Your task to perform on an android device: Open Chrome and go to settings Image 0: 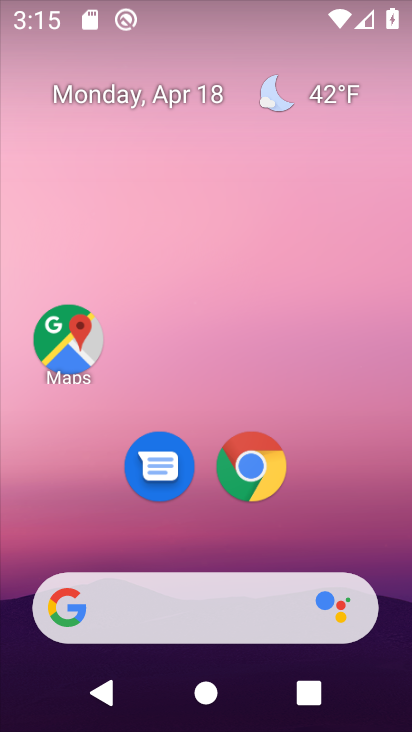
Step 0: click (277, 480)
Your task to perform on an android device: Open Chrome and go to settings Image 1: 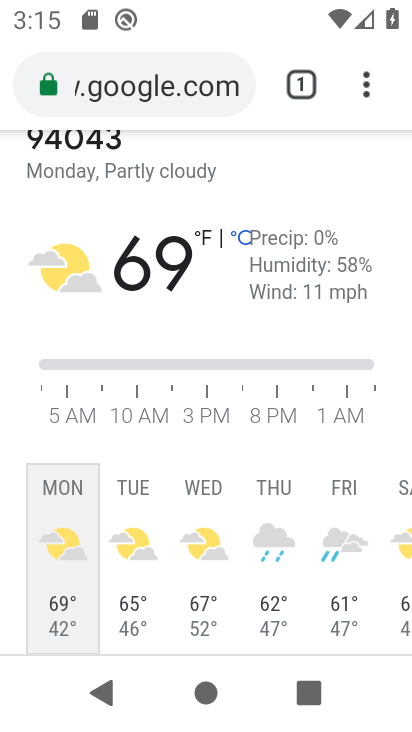
Step 1: drag from (362, 86) to (238, 528)
Your task to perform on an android device: Open Chrome and go to settings Image 2: 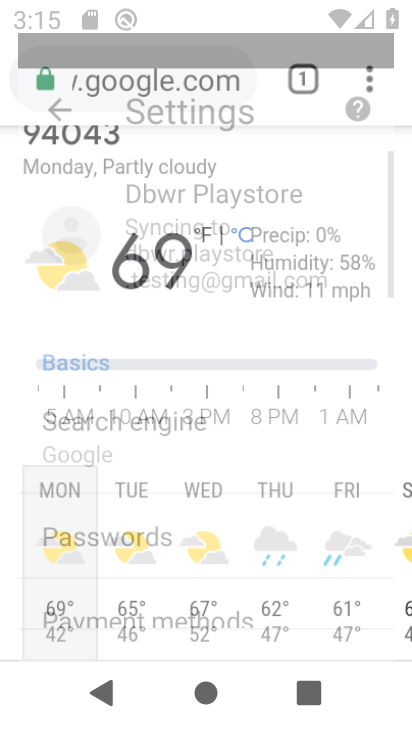
Step 2: drag from (238, 528) to (194, 528)
Your task to perform on an android device: Open Chrome and go to settings Image 3: 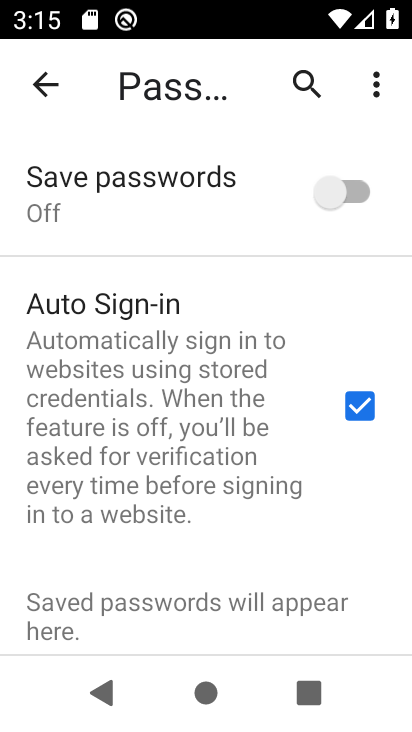
Step 3: click (50, 82)
Your task to perform on an android device: Open Chrome and go to settings Image 4: 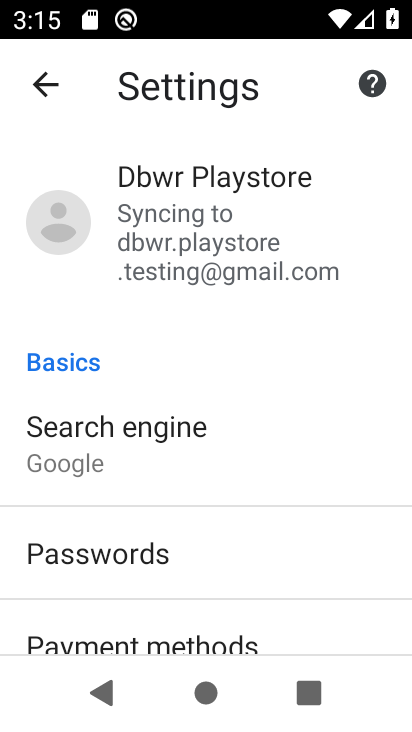
Step 4: task complete